Your task to perform on an android device: Open wifi settings Image 0: 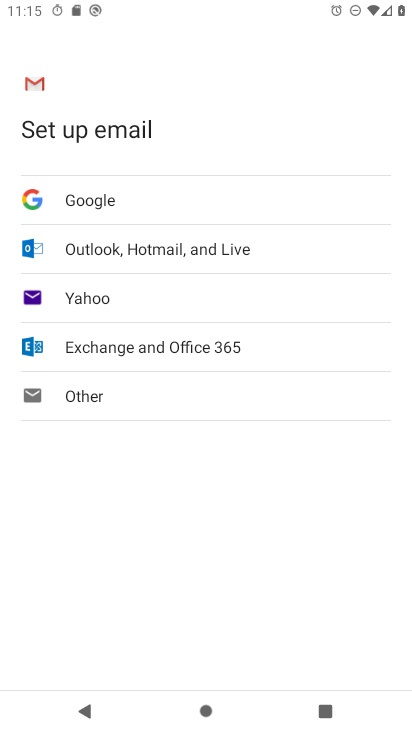
Step 0: press back button
Your task to perform on an android device: Open wifi settings Image 1: 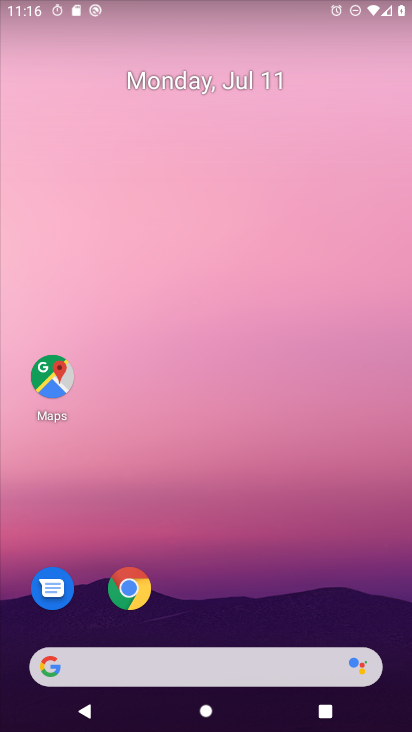
Step 1: drag from (69, 6) to (82, 621)
Your task to perform on an android device: Open wifi settings Image 2: 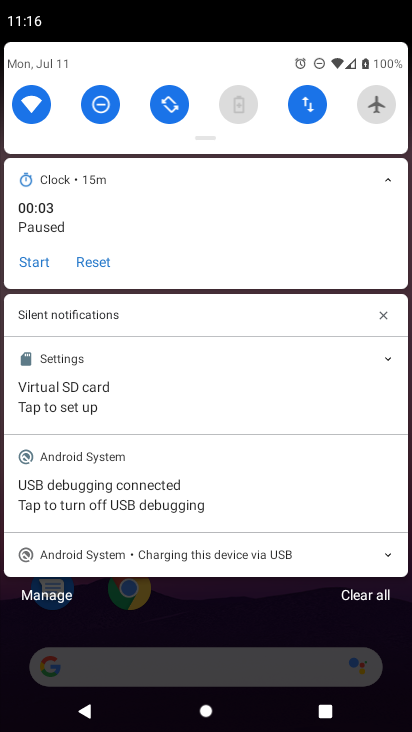
Step 2: click (27, 96)
Your task to perform on an android device: Open wifi settings Image 3: 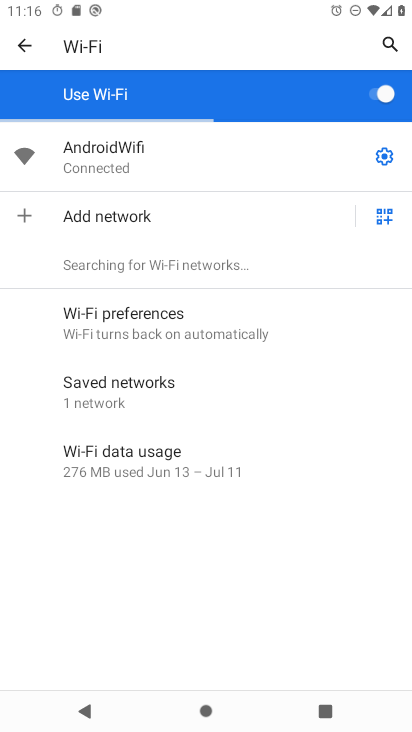
Step 3: task complete